Your task to perform on an android device: change the clock display to analog Image 0: 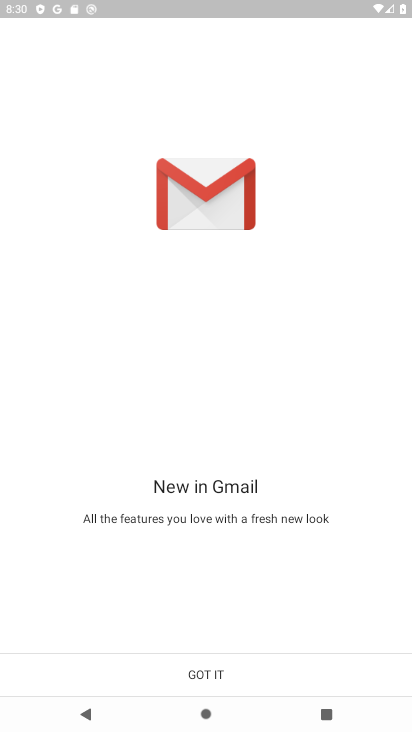
Step 0: press home button
Your task to perform on an android device: change the clock display to analog Image 1: 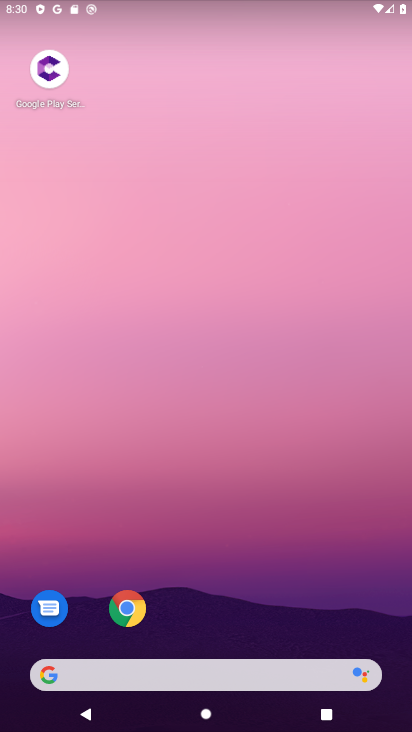
Step 1: drag from (258, 623) to (263, 14)
Your task to perform on an android device: change the clock display to analog Image 2: 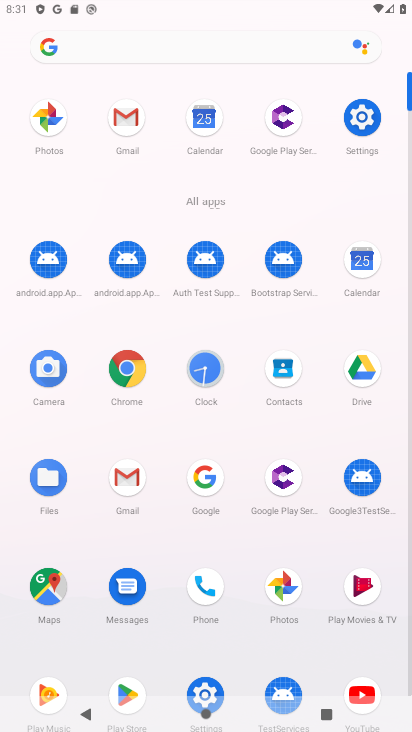
Step 2: click (205, 365)
Your task to perform on an android device: change the clock display to analog Image 3: 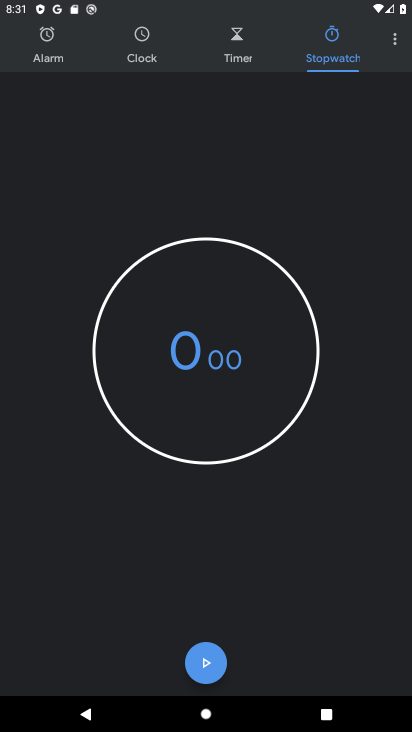
Step 3: click (402, 40)
Your task to perform on an android device: change the clock display to analog Image 4: 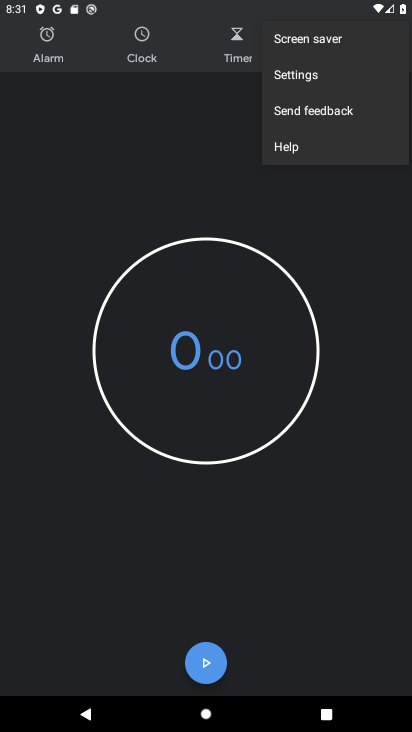
Step 4: click (315, 78)
Your task to perform on an android device: change the clock display to analog Image 5: 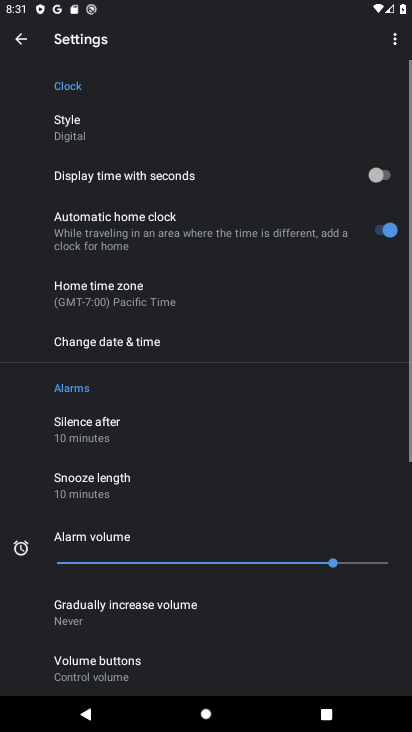
Step 5: click (57, 130)
Your task to perform on an android device: change the clock display to analog Image 6: 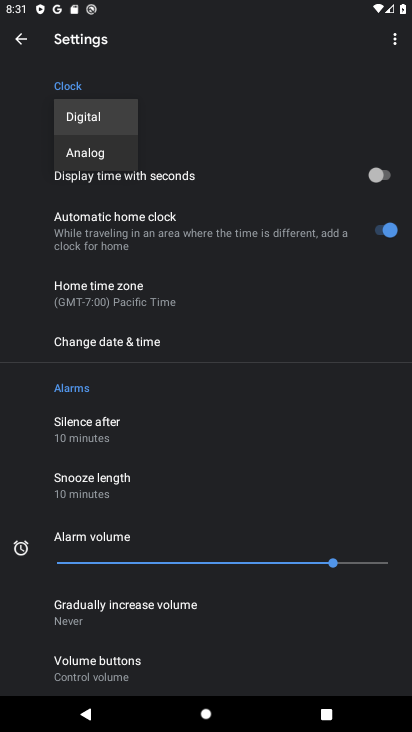
Step 6: click (73, 157)
Your task to perform on an android device: change the clock display to analog Image 7: 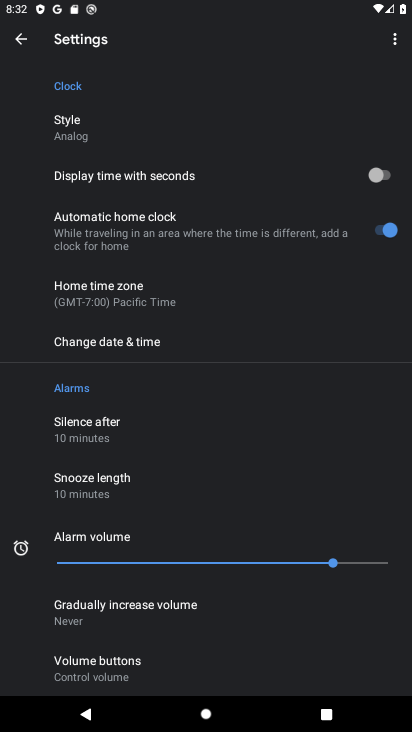
Step 7: task complete